Your task to perform on an android device: toggle notifications settings in the gmail app Image 0: 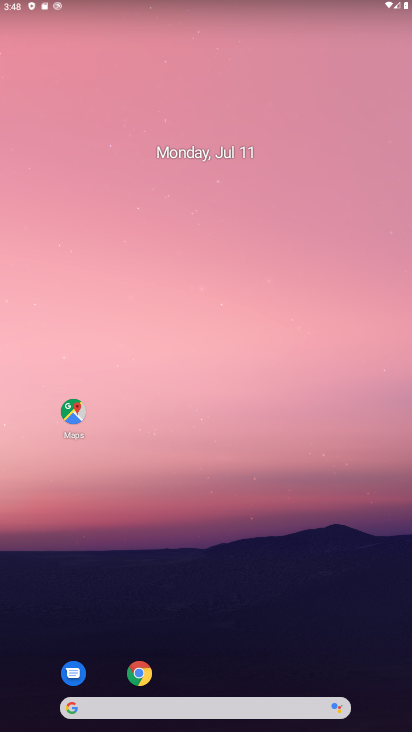
Step 0: drag from (383, 691) to (298, 10)
Your task to perform on an android device: toggle notifications settings in the gmail app Image 1: 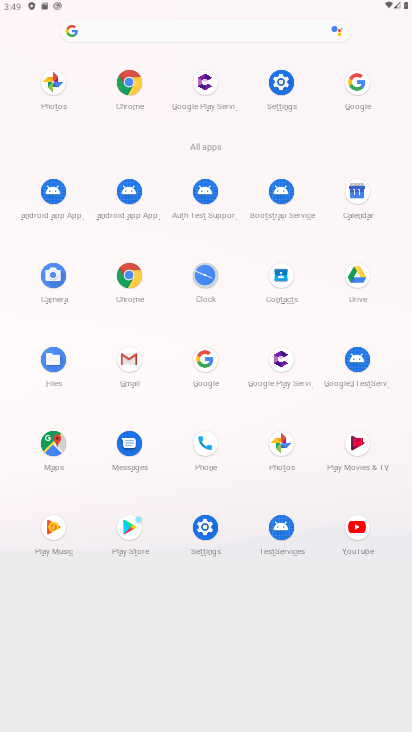
Step 1: click (130, 367)
Your task to perform on an android device: toggle notifications settings in the gmail app Image 2: 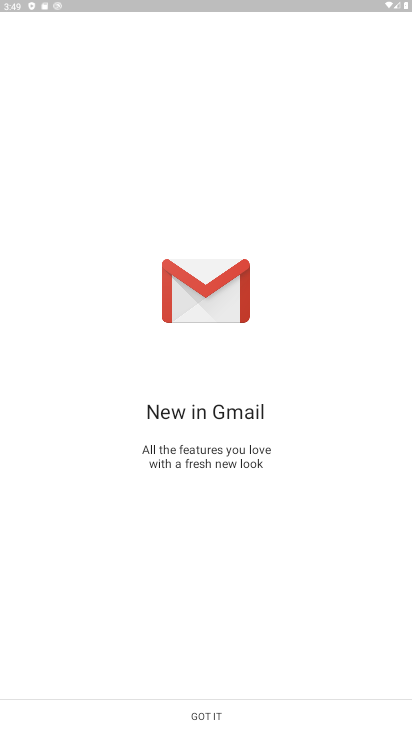
Step 2: click (227, 710)
Your task to perform on an android device: toggle notifications settings in the gmail app Image 3: 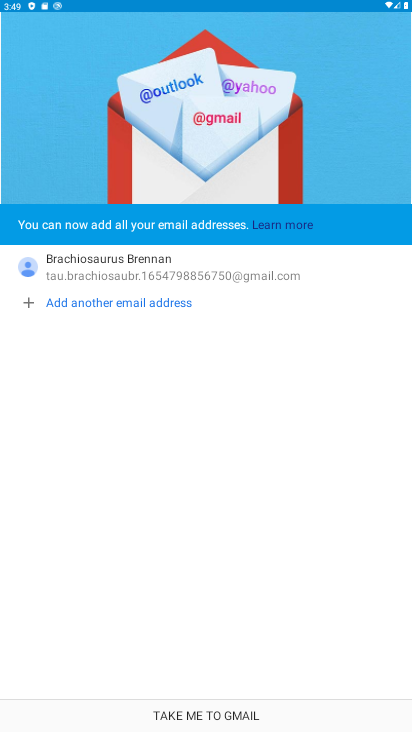
Step 3: click (227, 710)
Your task to perform on an android device: toggle notifications settings in the gmail app Image 4: 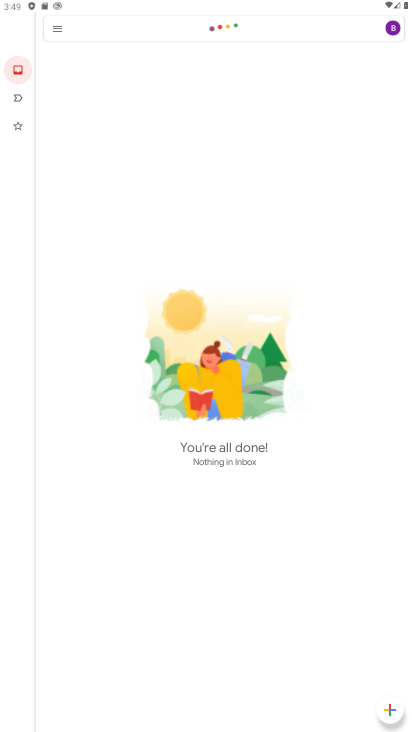
Step 4: click (57, 29)
Your task to perform on an android device: toggle notifications settings in the gmail app Image 5: 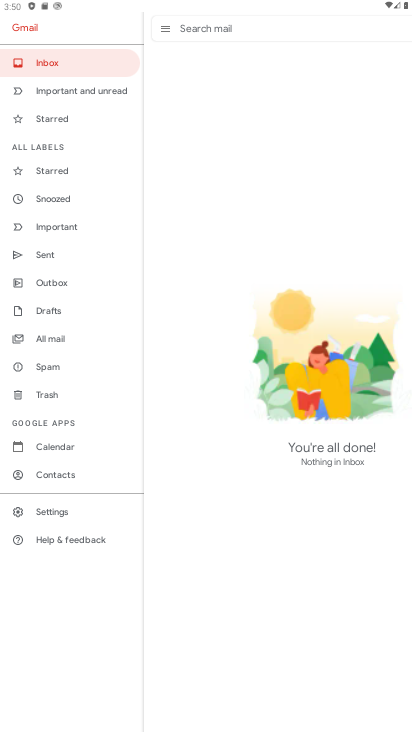
Step 5: click (58, 509)
Your task to perform on an android device: toggle notifications settings in the gmail app Image 6: 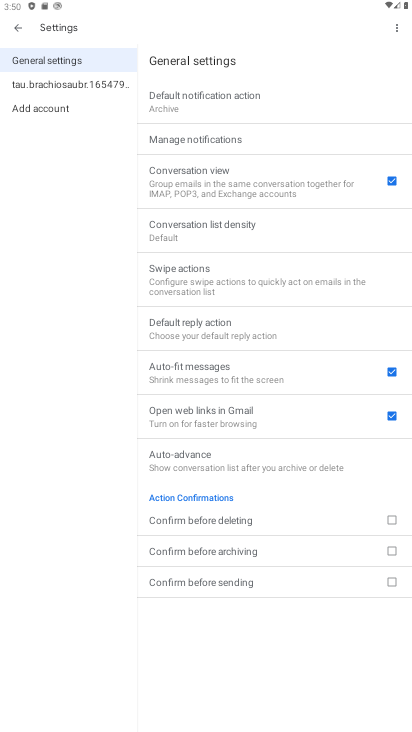
Step 6: click (75, 87)
Your task to perform on an android device: toggle notifications settings in the gmail app Image 7: 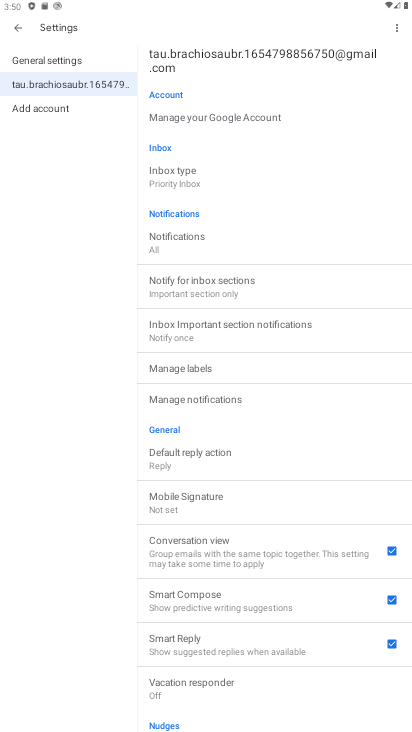
Step 7: click (211, 250)
Your task to perform on an android device: toggle notifications settings in the gmail app Image 8: 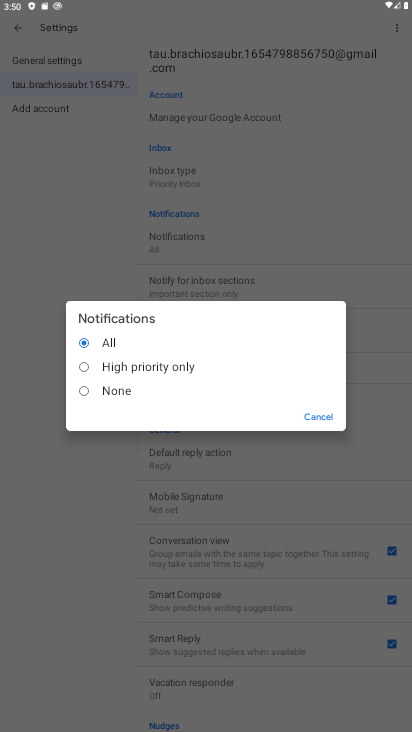
Step 8: click (103, 394)
Your task to perform on an android device: toggle notifications settings in the gmail app Image 9: 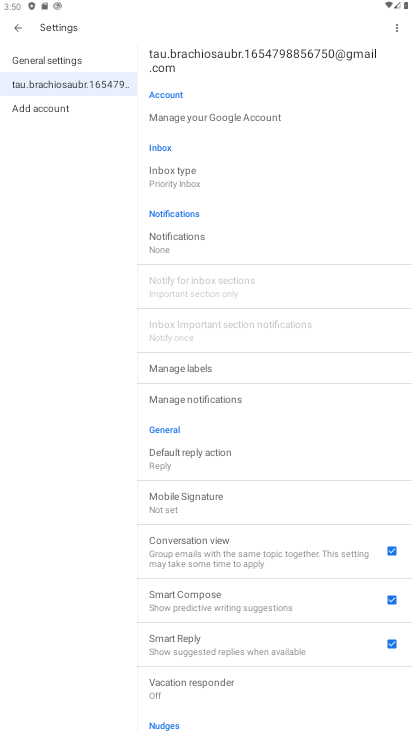
Step 9: task complete